Your task to perform on an android device: What's the weather today? Image 0: 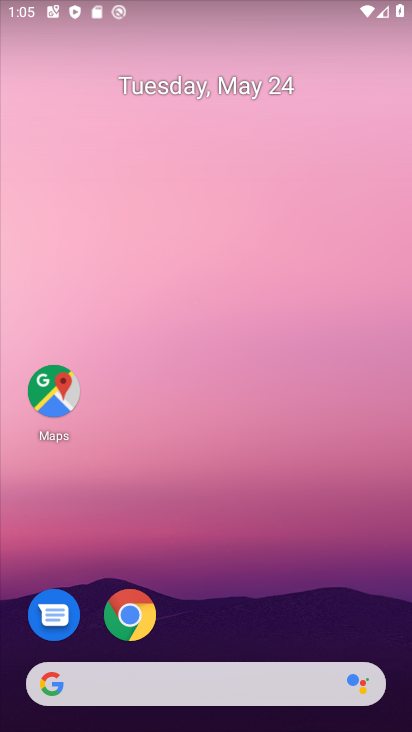
Step 0: click (124, 680)
Your task to perform on an android device: What's the weather today? Image 1: 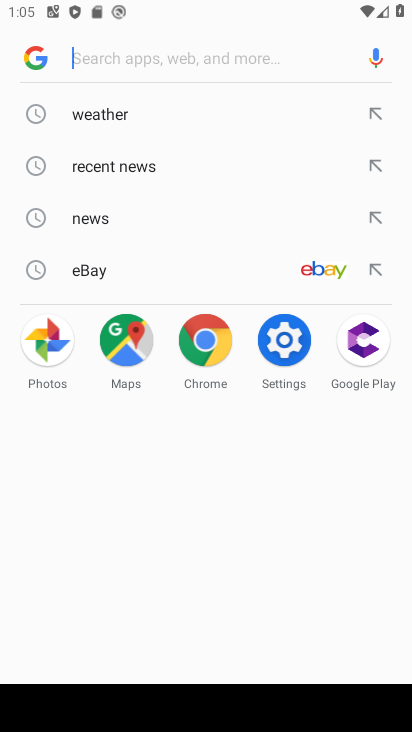
Step 1: click (90, 116)
Your task to perform on an android device: What's the weather today? Image 2: 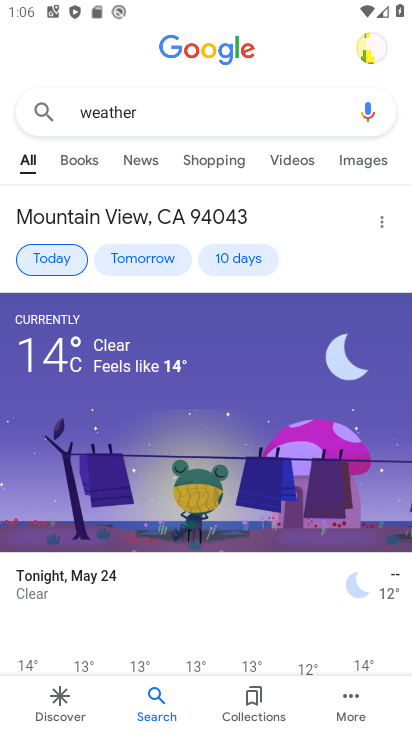
Step 2: click (44, 258)
Your task to perform on an android device: What's the weather today? Image 3: 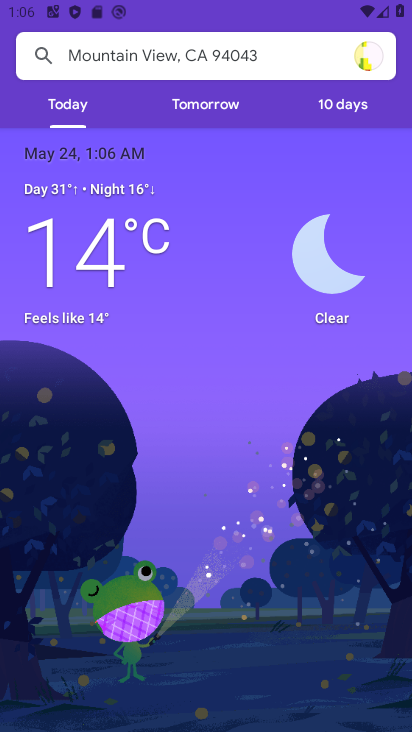
Step 3: task complete